Your task to perform on an android device: Do I have any events this weekend? Image 0: 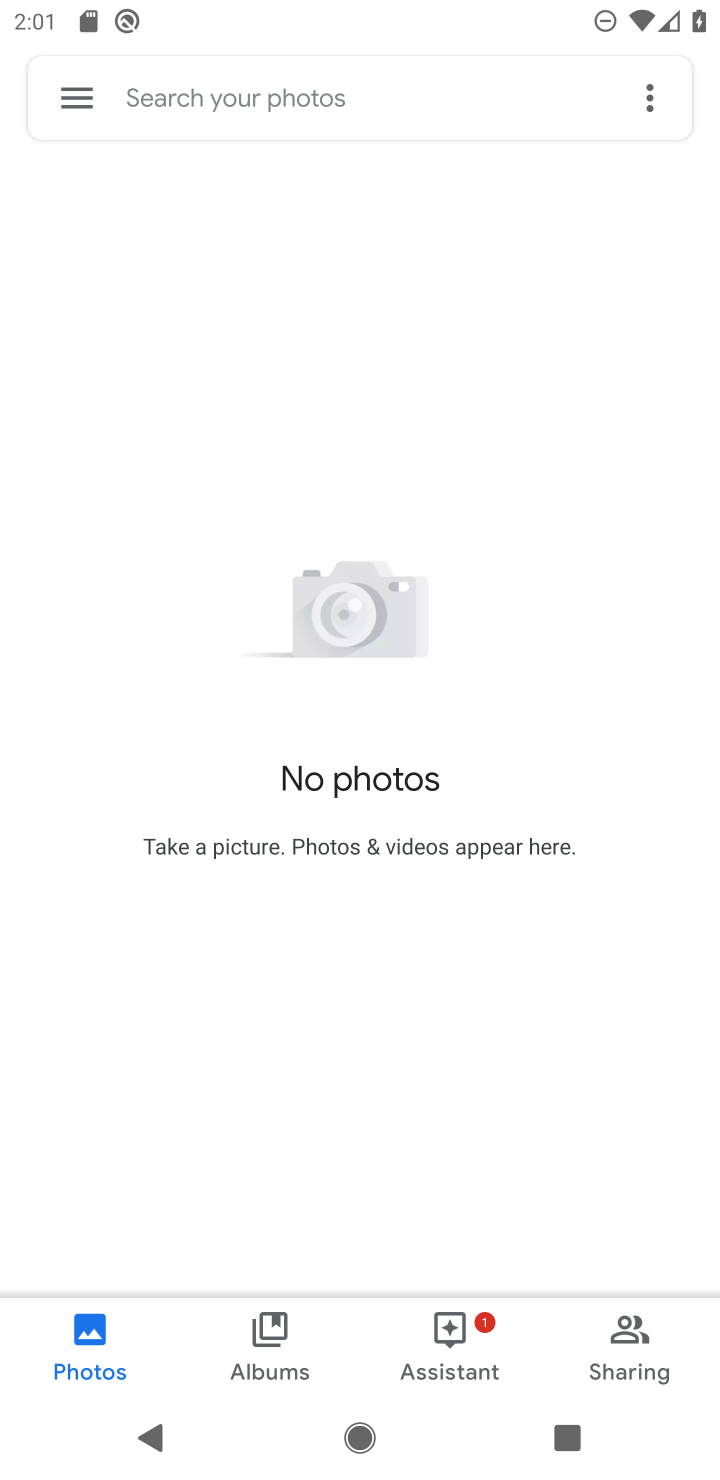
Step 0: press home button
Your task to perform on an android device: Do I have any events this weekend? Image 1: 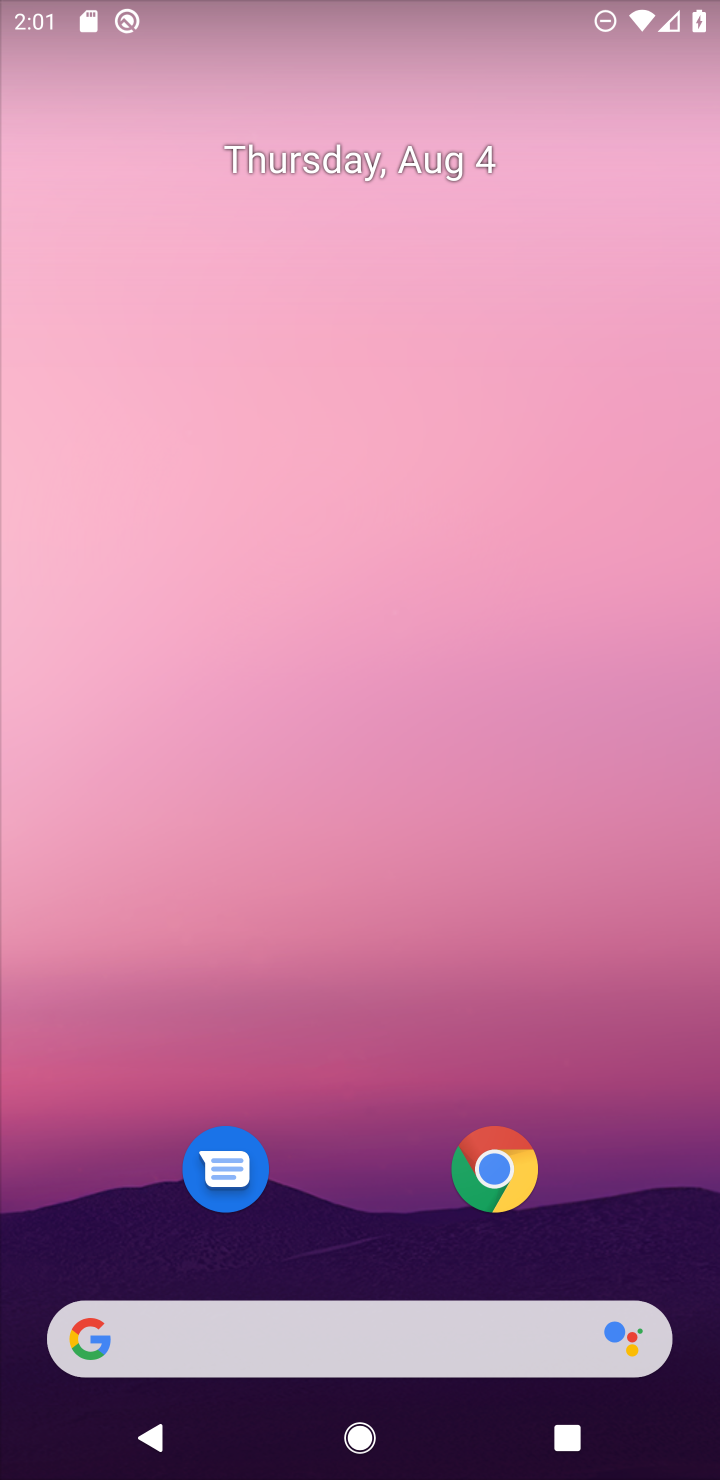
Step 1: drag from (375, 1208) to (371, 130)
Your task to perform on an android device: Do I have any events this weekend? Image 2: 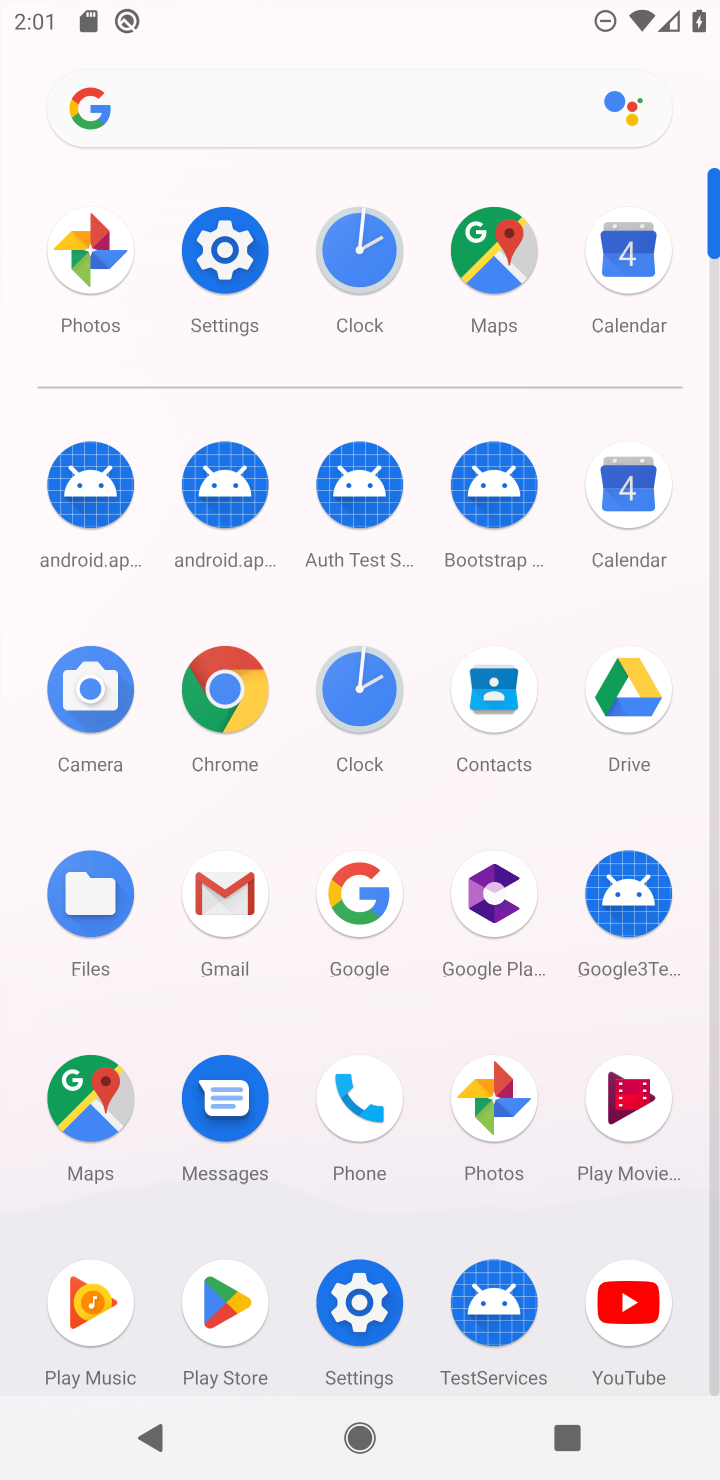
Step 2: click (635, 278)
Your task to perform on an android device: Do I have any events this weekend? Image 3: 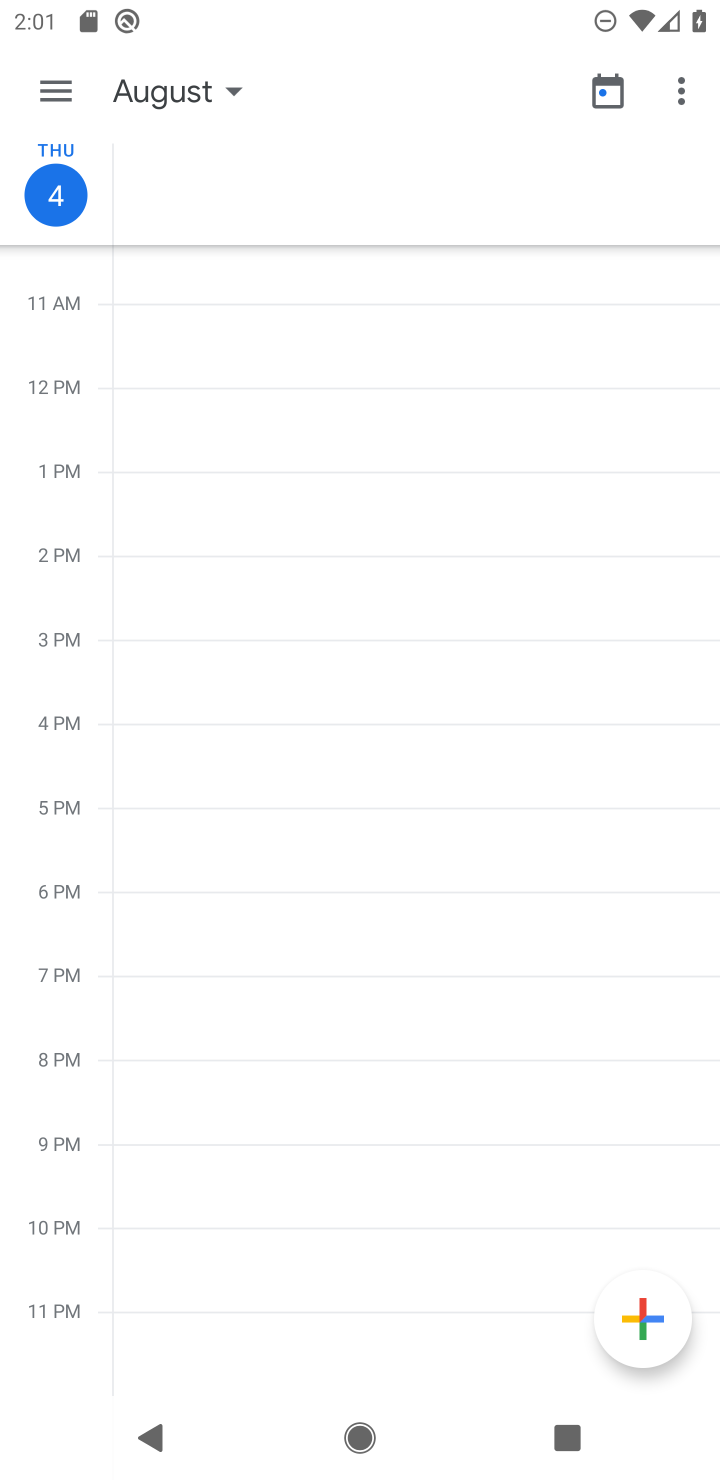
Step 3: click (56, 82)
Your task to perform on an android device: Do I have any events this weekend? Image 4: 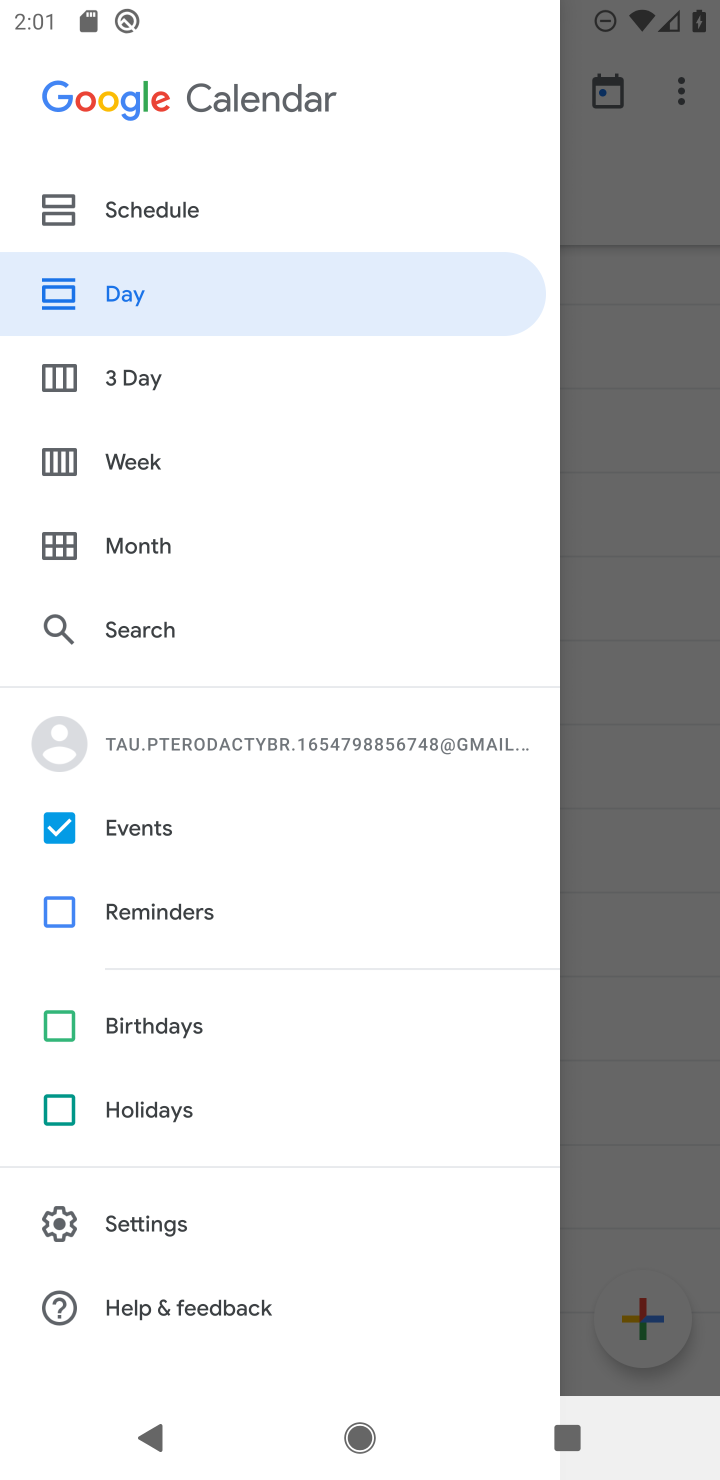
Step 4: click (75, 387)
Your task to perform on an android device: Do I have any events this weekend? Image 5: 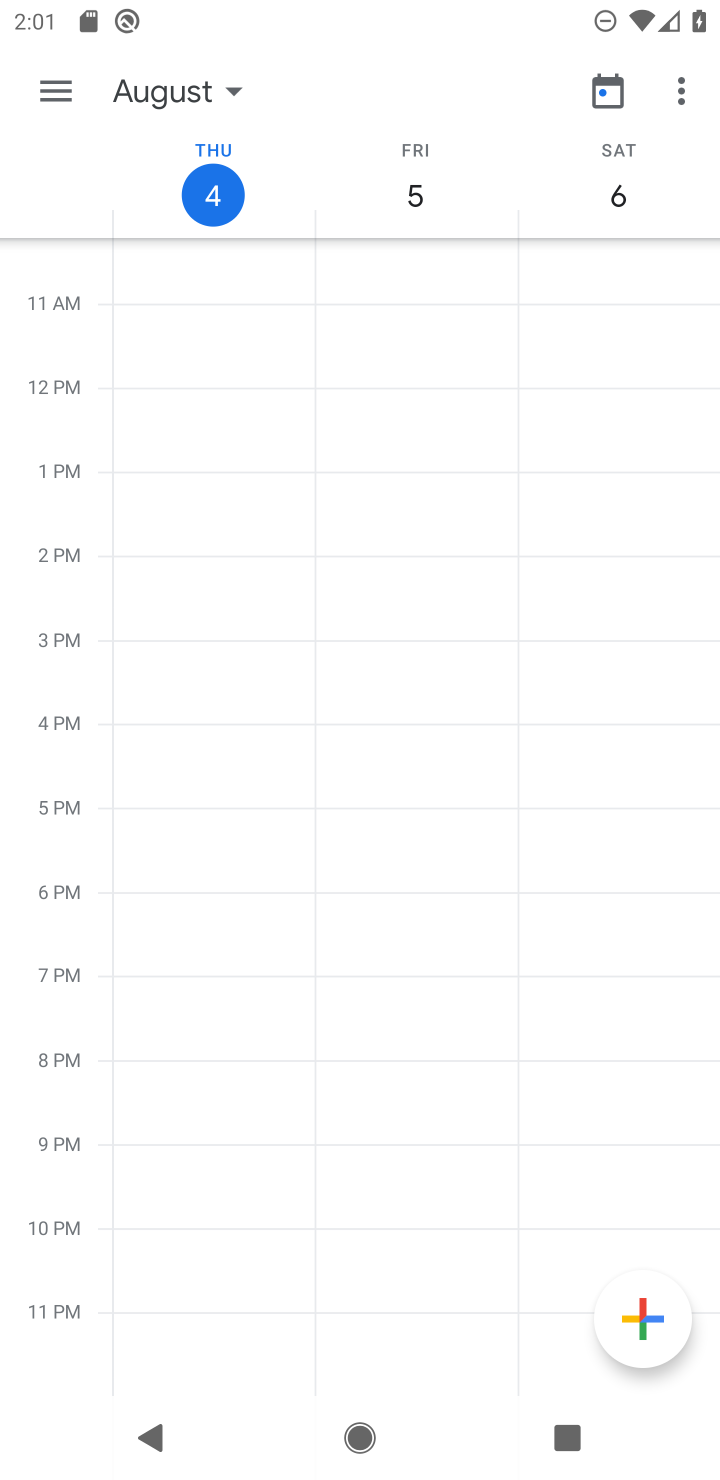
Step 5: click (243, 91)
Your task to perform on an android device: Do I have any events this weekend? Image 6: 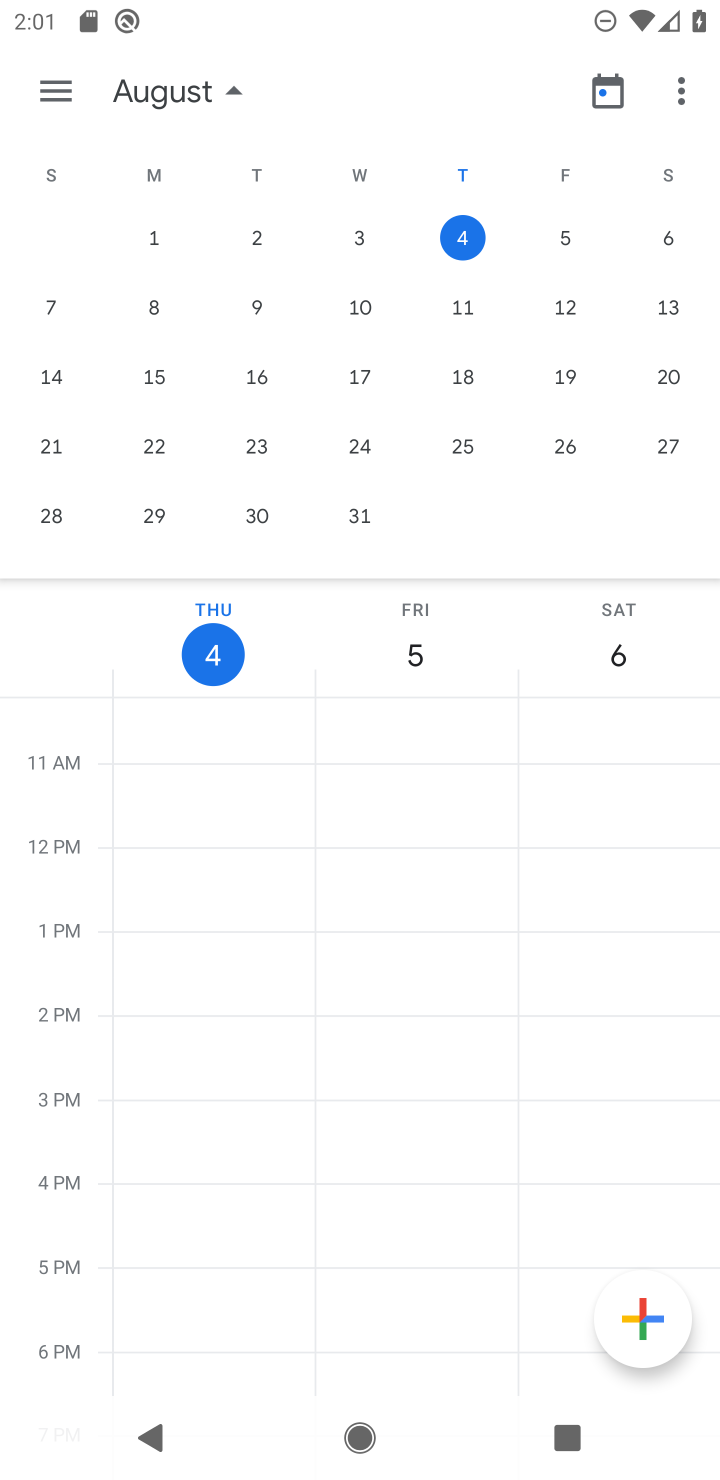
Step 6: click (569, 237)
Your task to perform on an android device: Do I have any events this weekend? Image 7: 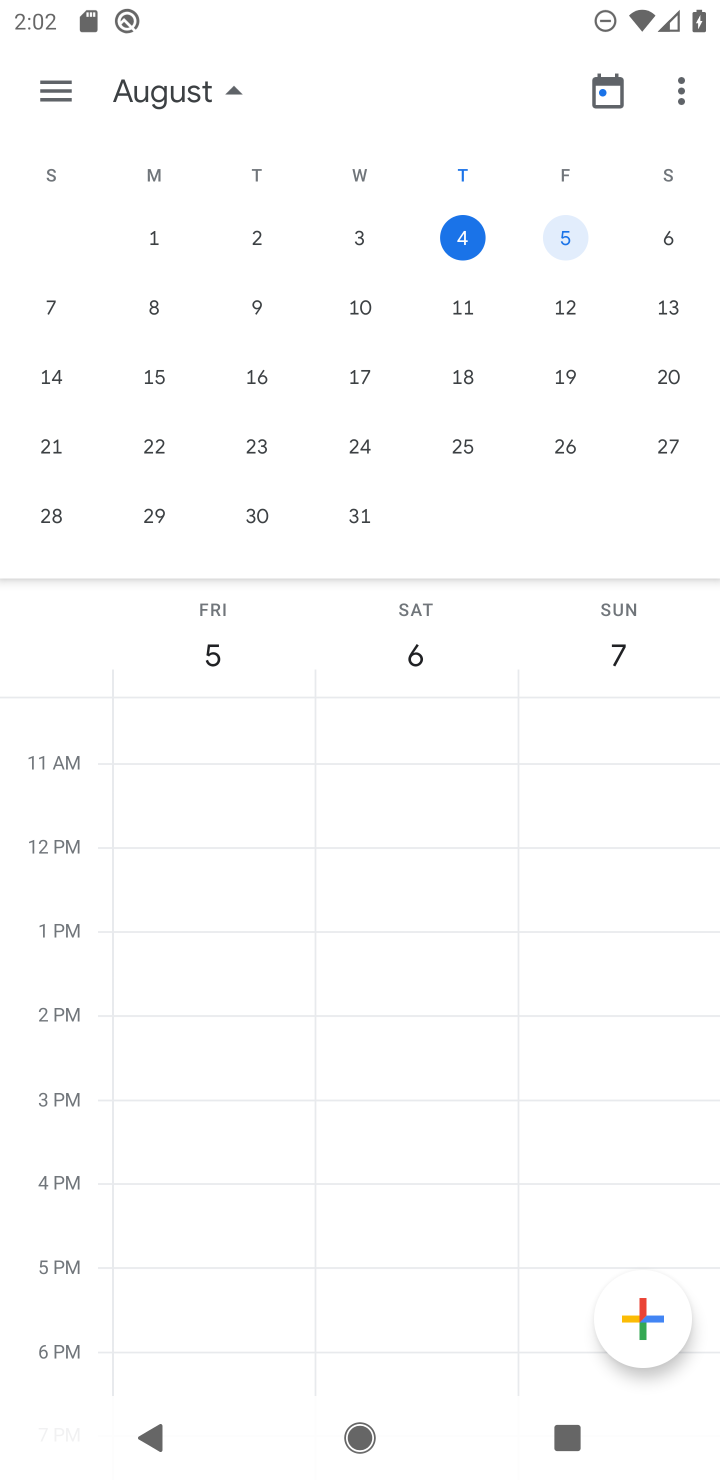
Step 7: task complete